Your task to perform on an android device: clear all cookies in the chrome app Image 0: 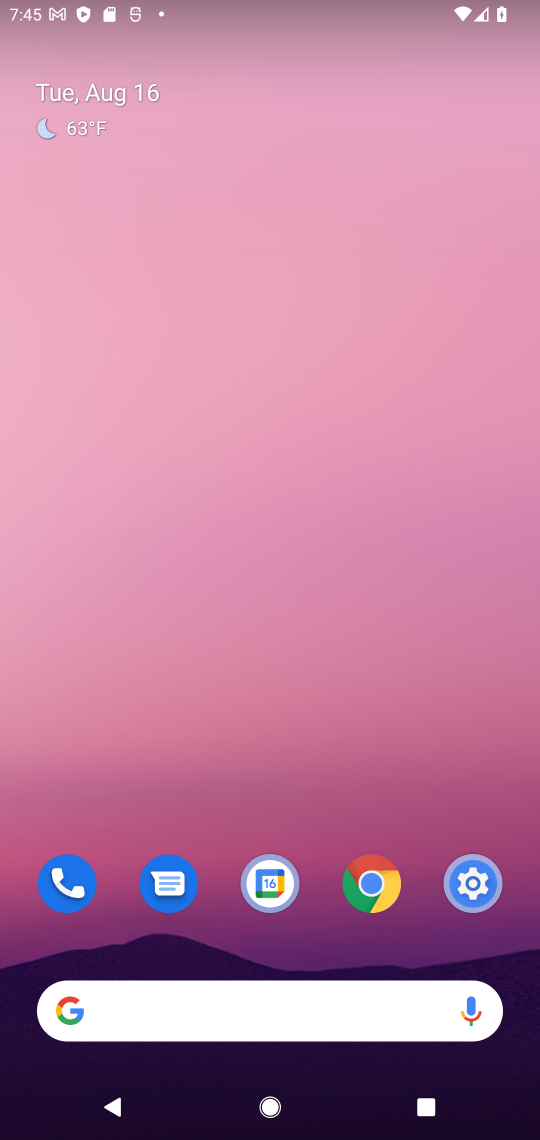
Step 0: click (388, 891)
Your task to perform on an android device: clear all cookies in the chrome app Image 1: 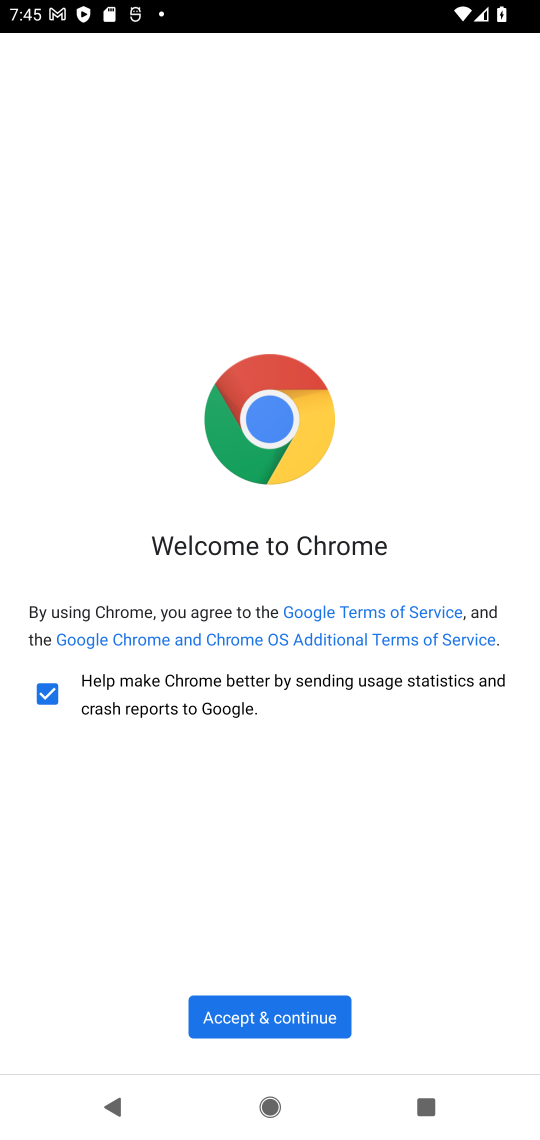
Step 1: click (269, 1021)
Your task to perform on an android device: clear all cookies in the chrome app Image 2: 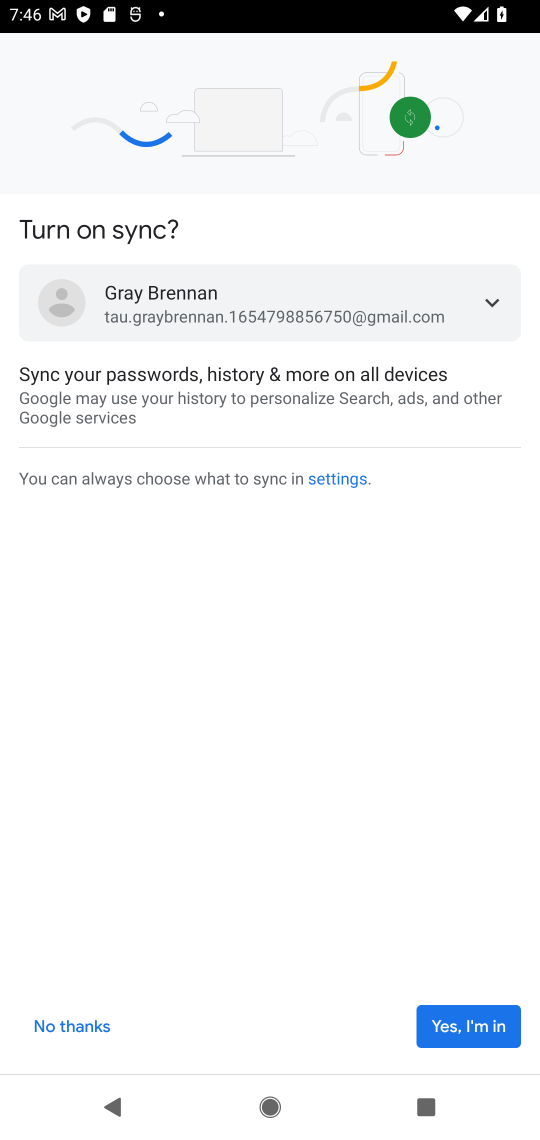
Step 2: click (442, 1034)
Your task to perform on an android device: clear all cookies in the chrome app Image 3: 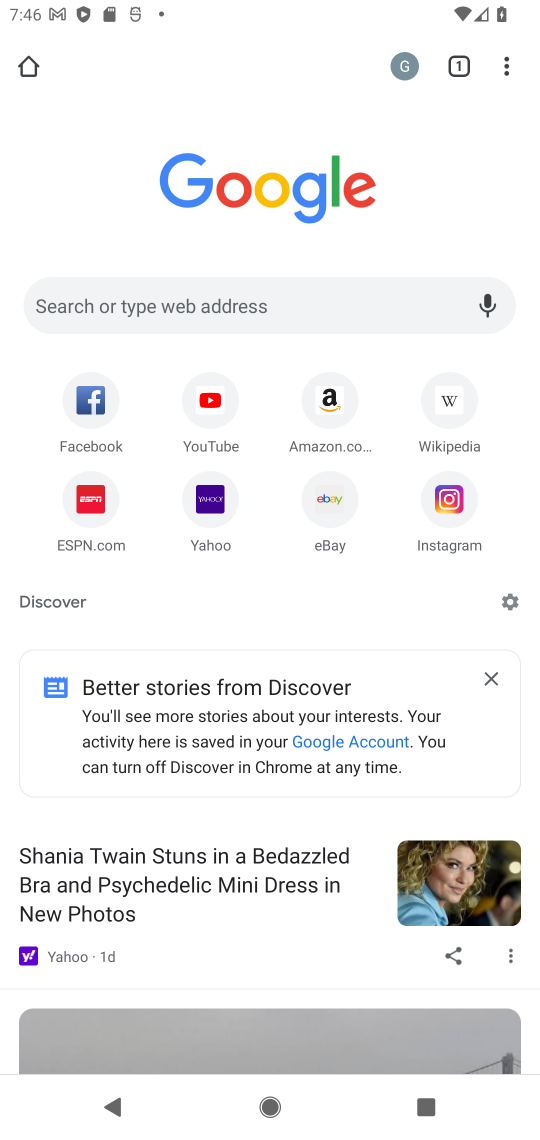
Step 3: click (505, 66)
Your task to perform on an android device: clear all cookies in the chrome app Image 4: 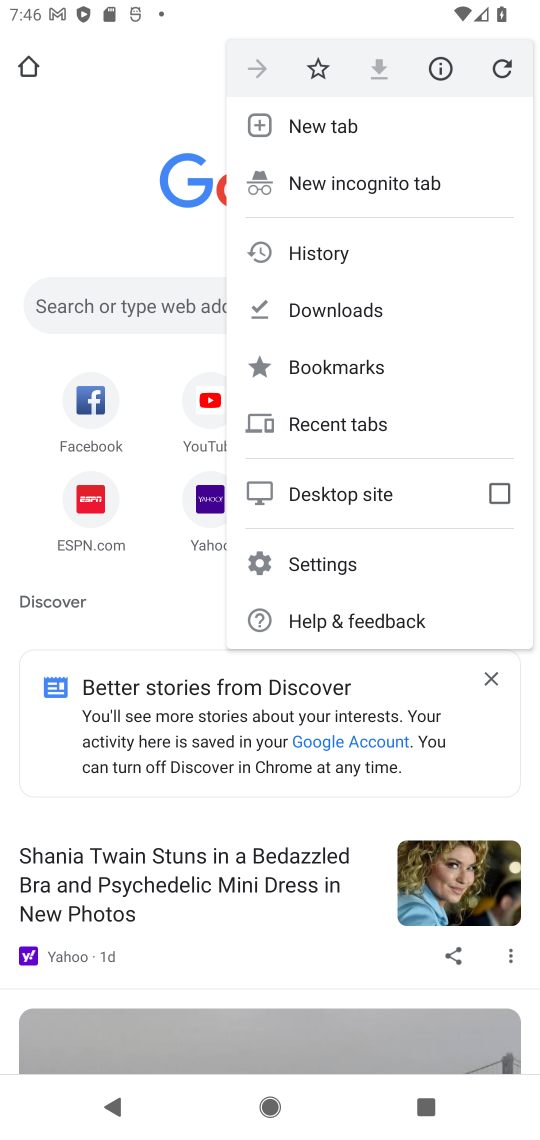
Step 4: click (371, 554)
Your task to perform on an android device: clear all cookies in the chrome app Image 5: 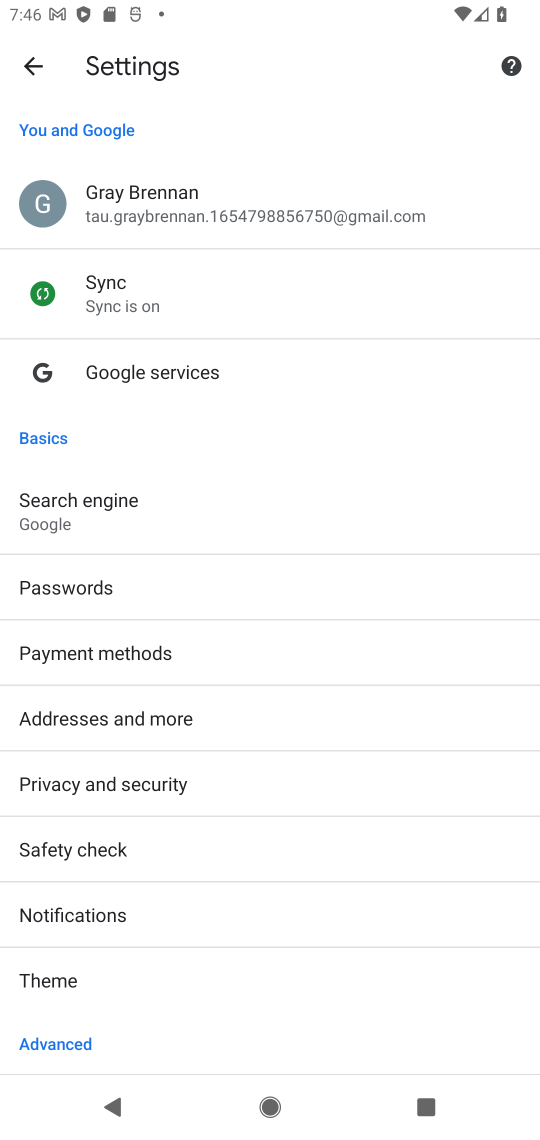
Step 5: click (93, 785)
Your task to perform on an android device: clear all cookies in the chrome app Image 6: 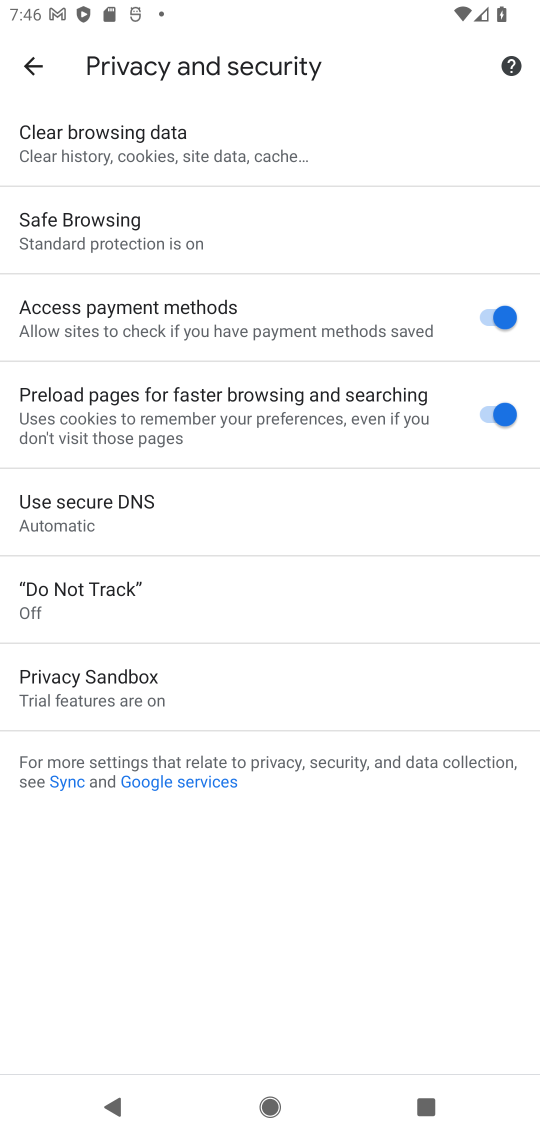
Step 6: click (126, 156)
Your task to perform on an android device: clear all cookies in the chrome app Image 7: 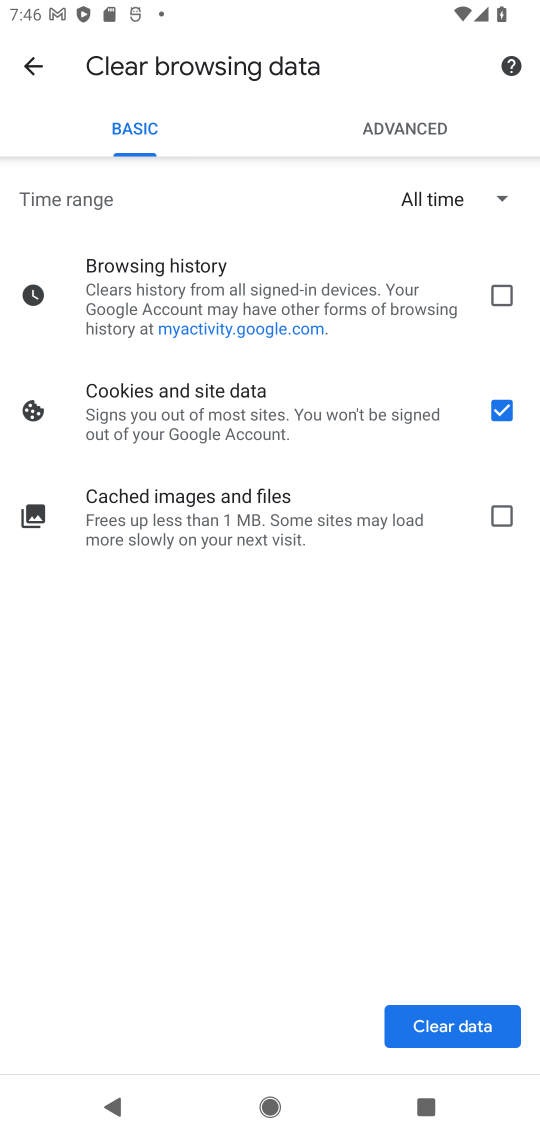
Step 7: click (493, 1030)
Your task to perform on an android device: clear all cookies in the chrome app Image 8: 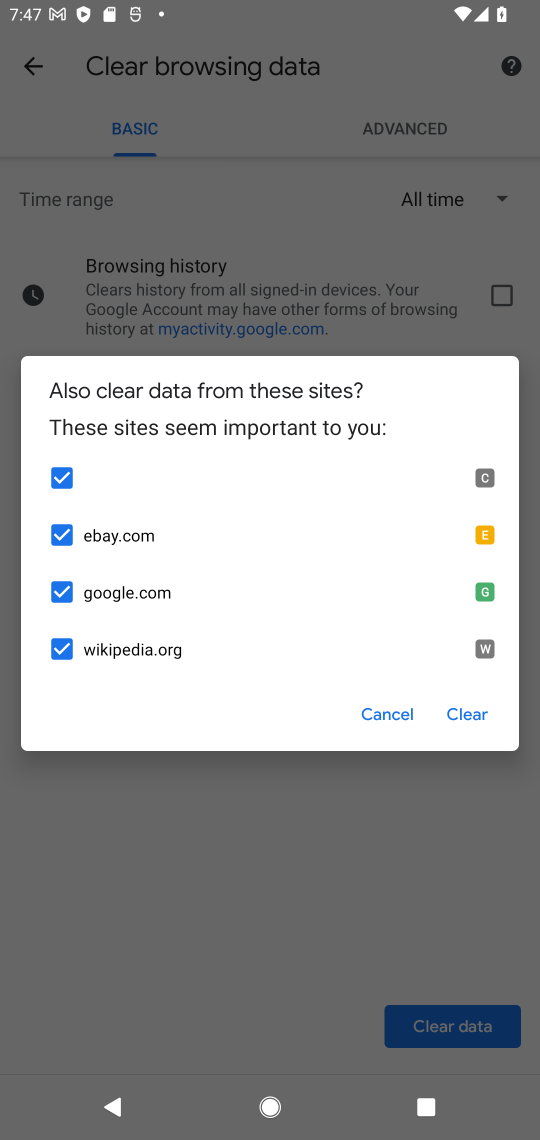
Step 8: task complete